Your task to perform on an android device: toggle wifi Image 0: 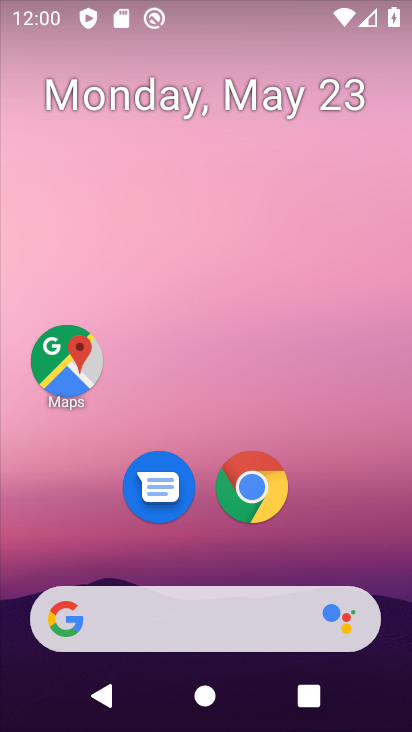
Step 0: drag from (243, 393) to (294, 29)
Your task to perform on an android device: toggle wifi Image 1: 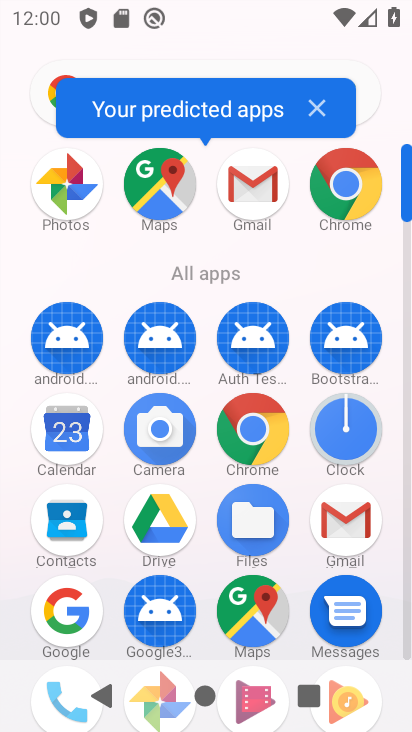
Step 1: drag from (206, 486) to (236, 148)
Your task to perform on an android device: toggle wifi Image 2: 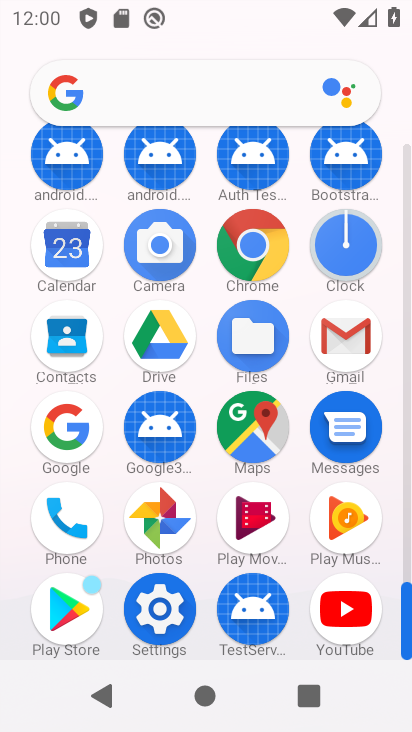
Step 2: click (152, 598)
Your task to perform on an android device: toggle wifi Image 3: 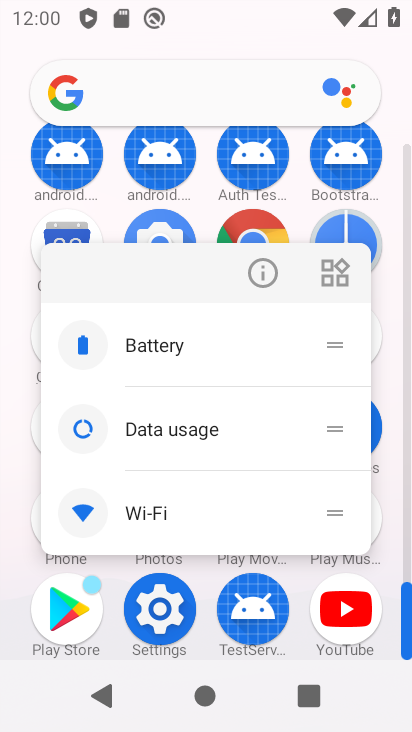
Step 3: click (156, 590)
Your task to perform on an android device: toggle wifi Image 4: 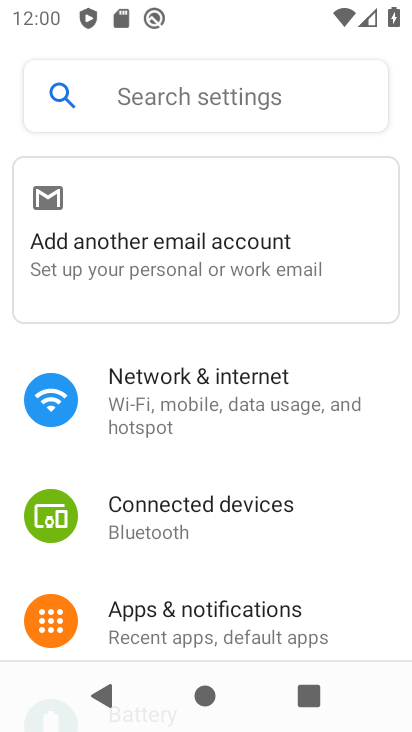
Step 4: click (262, 392)
Your task to perform on an android device: toggle wifi Image 5: 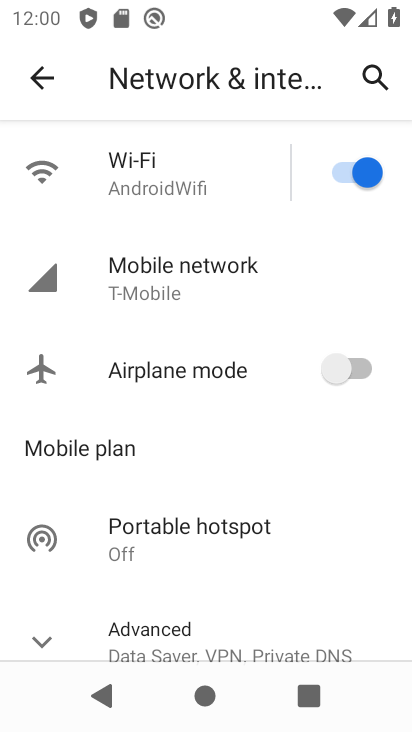
Step 5: click (335, 164)
Your task to perform on an android device: toggle wifi Image 6: 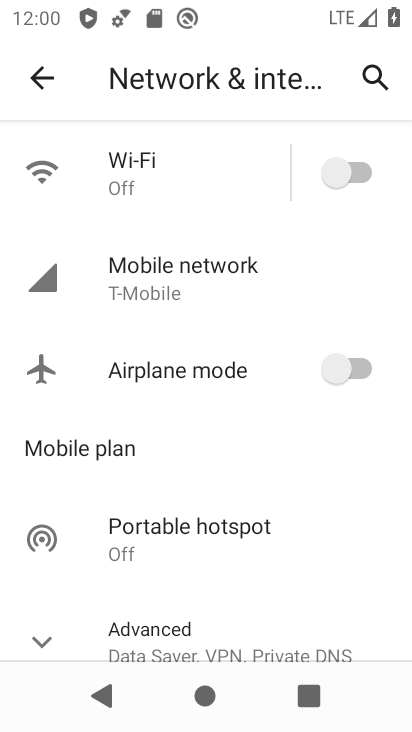
Step 6: task complete